Your task to perform on an android device: Go to Wikipedia Image 0: 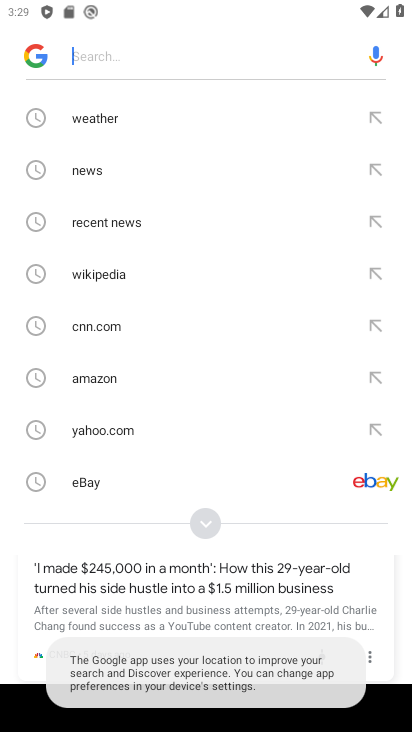
Step 0: click (106, 270)
Your task to perform on an android device: Go to Wikipedia Image 1: 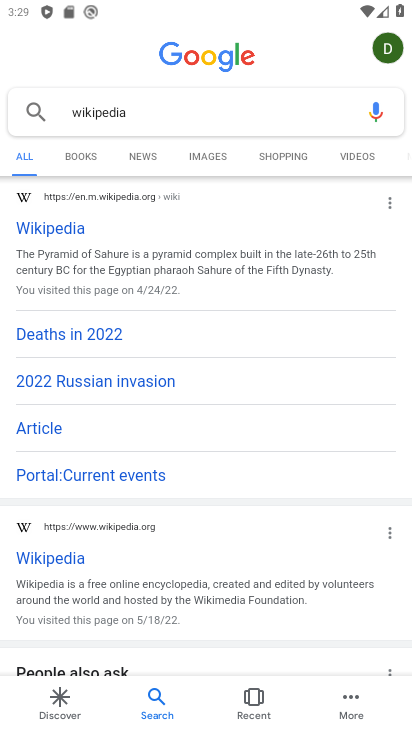
Step 1: click (47, 230)
Your task to perform on an android device: Go to Wikipedia Image 2: 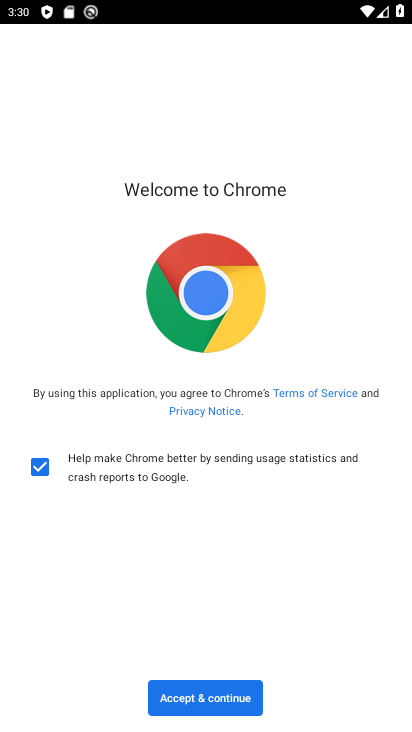
Step 2: click (215, 679)
Your task to perform on an android device: Go to Wikipedia Image 3: 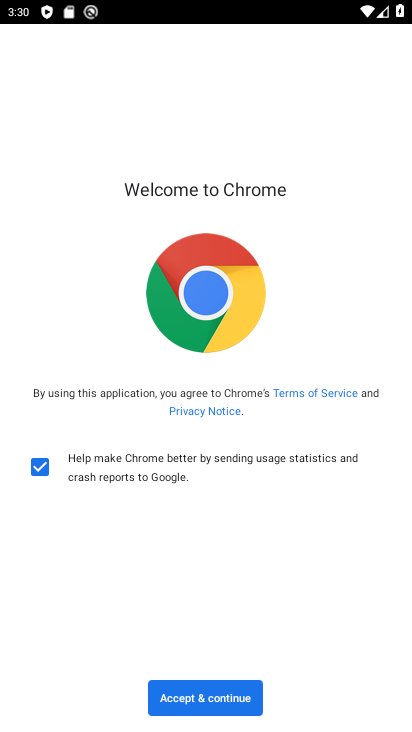
Step 3: click (228, 697)
Your task to perform on an android device: Go to Wikipedia Image 4: 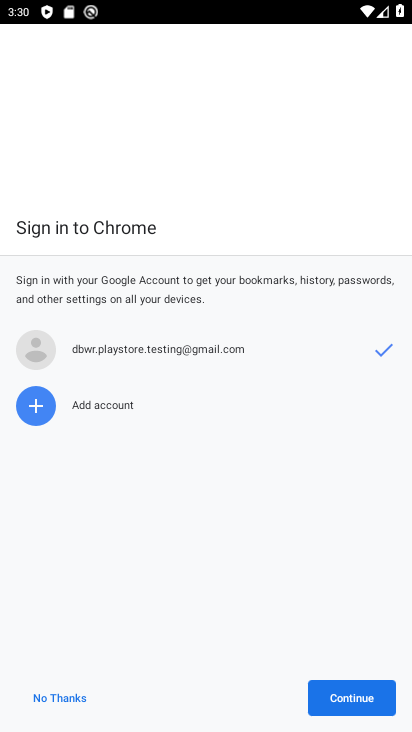
Step 4: click (347, 691)
Your task to perform on an android device: Go to Wikipedia Image 5: 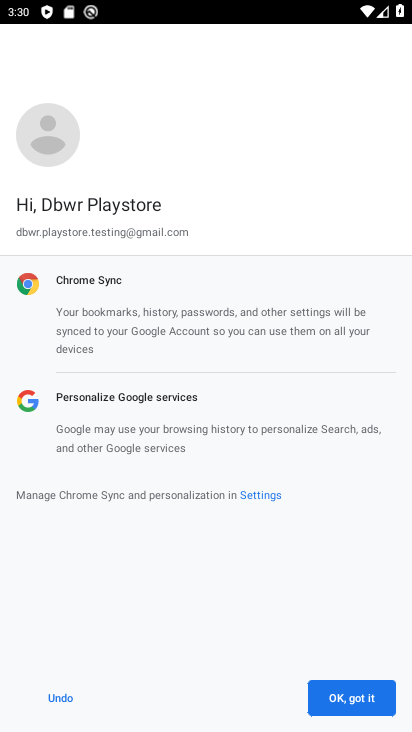
Step 5: click (349, 704)
Your task to perform on an android device: Go to Wikipedia Image 6: 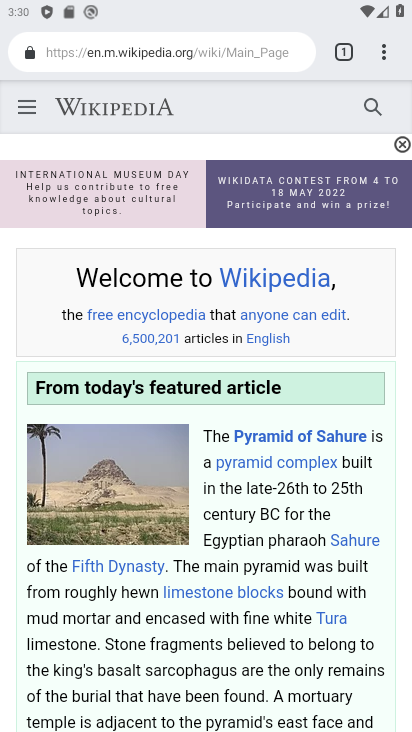
Step 6: task complete